Your task to perform on an android device: Go to Amazon Image 0: 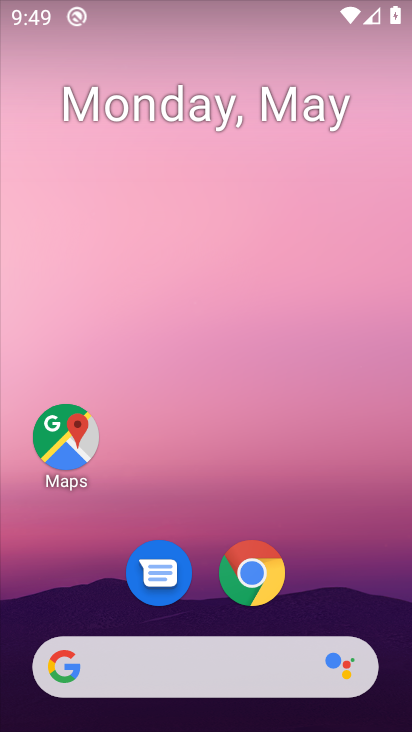
Step 0: click (254, 579)
Your task to perform on an android device: Go to Amazon Image 1: 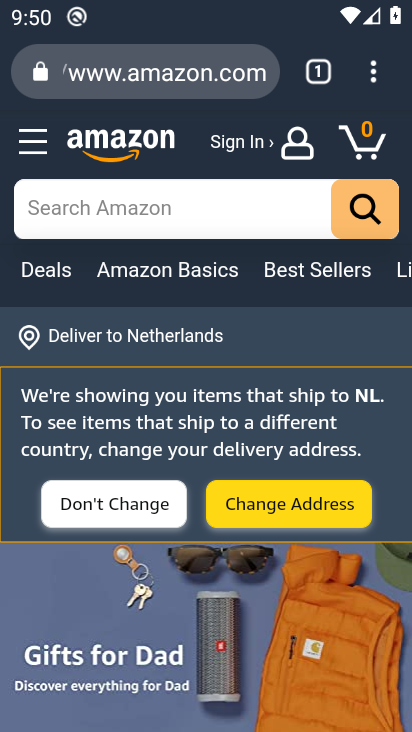
Step 1: task complete